Your task to perform on an android device: toggle airplane mode Image 0: 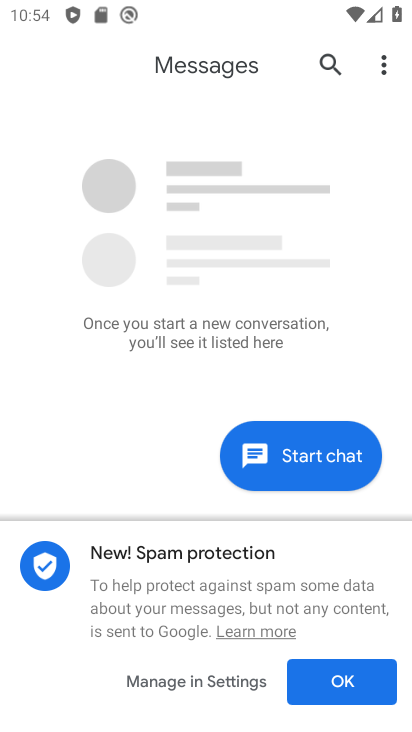
Step 0: press home button
Your task to perform on an android device: toggle airplane mode Image 1: 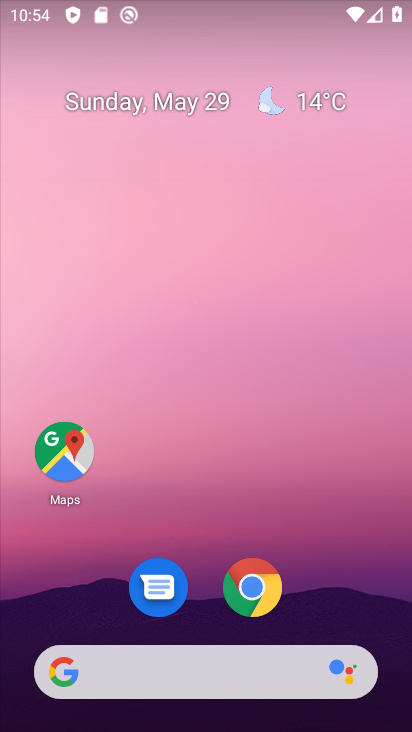
Step 1: drag from (350, 588) to (300, 143)
Your task to perform on an android device: toggle airplane mode Image 2: 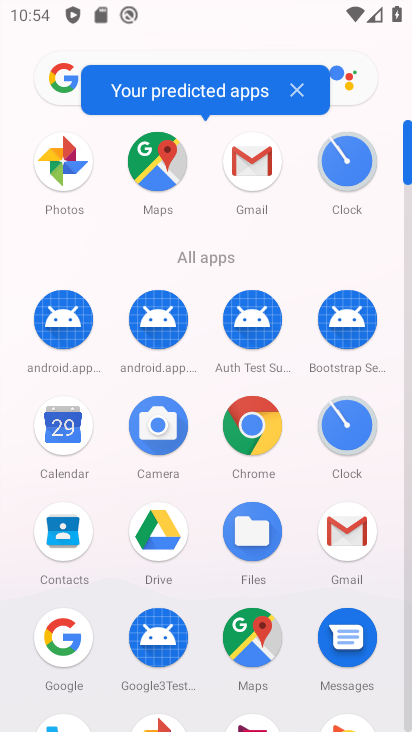
Step 2: drag from (221, 571) to (221, 267)
Your task to perform on an android device: toggle airplane mode Image 3: 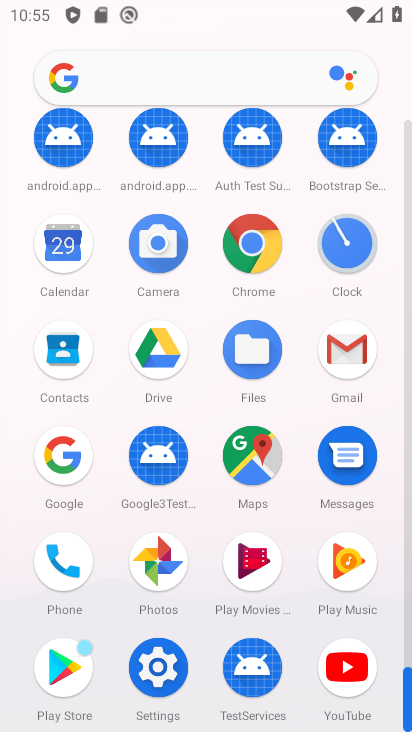
Step 3: click (165, 688)
Your task to perform on an android device: toggle airplane mode Image 4: 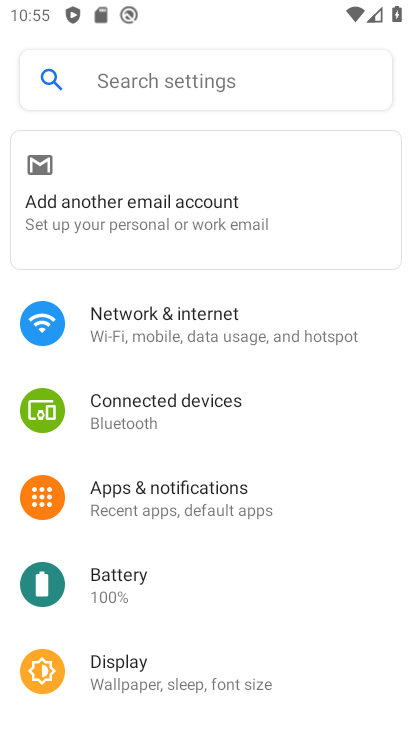
Step 4: click (298, 332)
Your task to perform on an android device: toggle airplane mode Image 5: 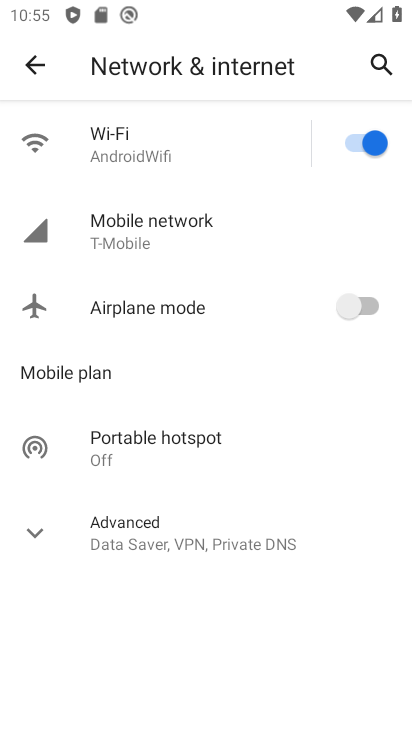
Step 5: click (369, 311)
Your task to perform on an android device: toggle airplane mode Image 6: 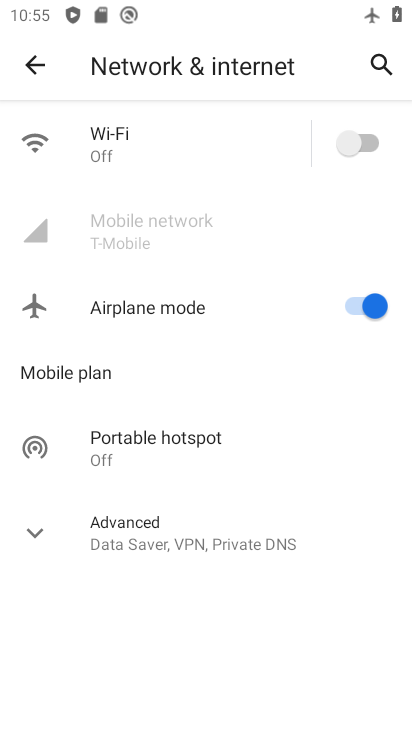
Step 6: task complete